Your task to perform on an android device: Clear all items from cart on ebay.com. Add "lenovo thinkpad" to the cart on ebay.com, then select checkout. Image 0: 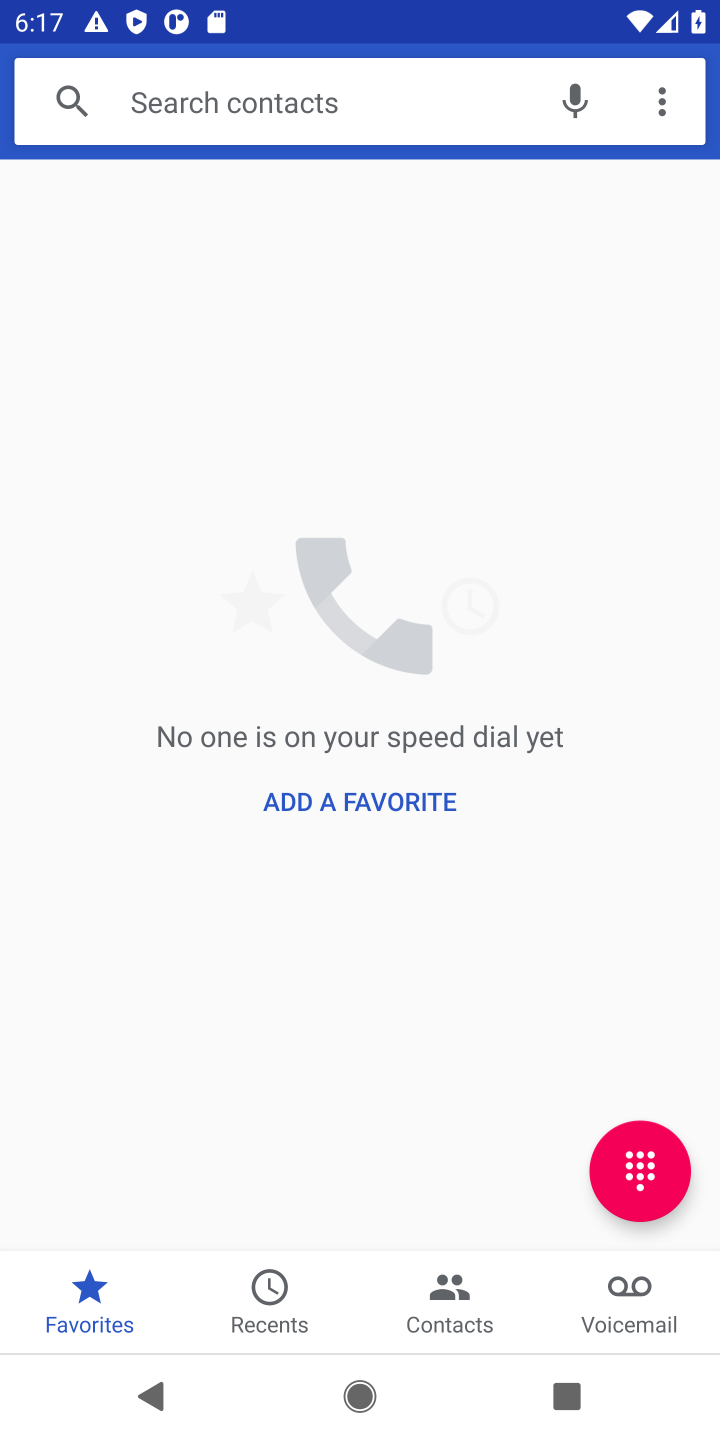
Step 0: press home button
Your task to perform on an android device: Clear all items from cart on ebay.com. Add "lenovo thinkpad" to the cart on ebay.com, then select checkout. Image 1: 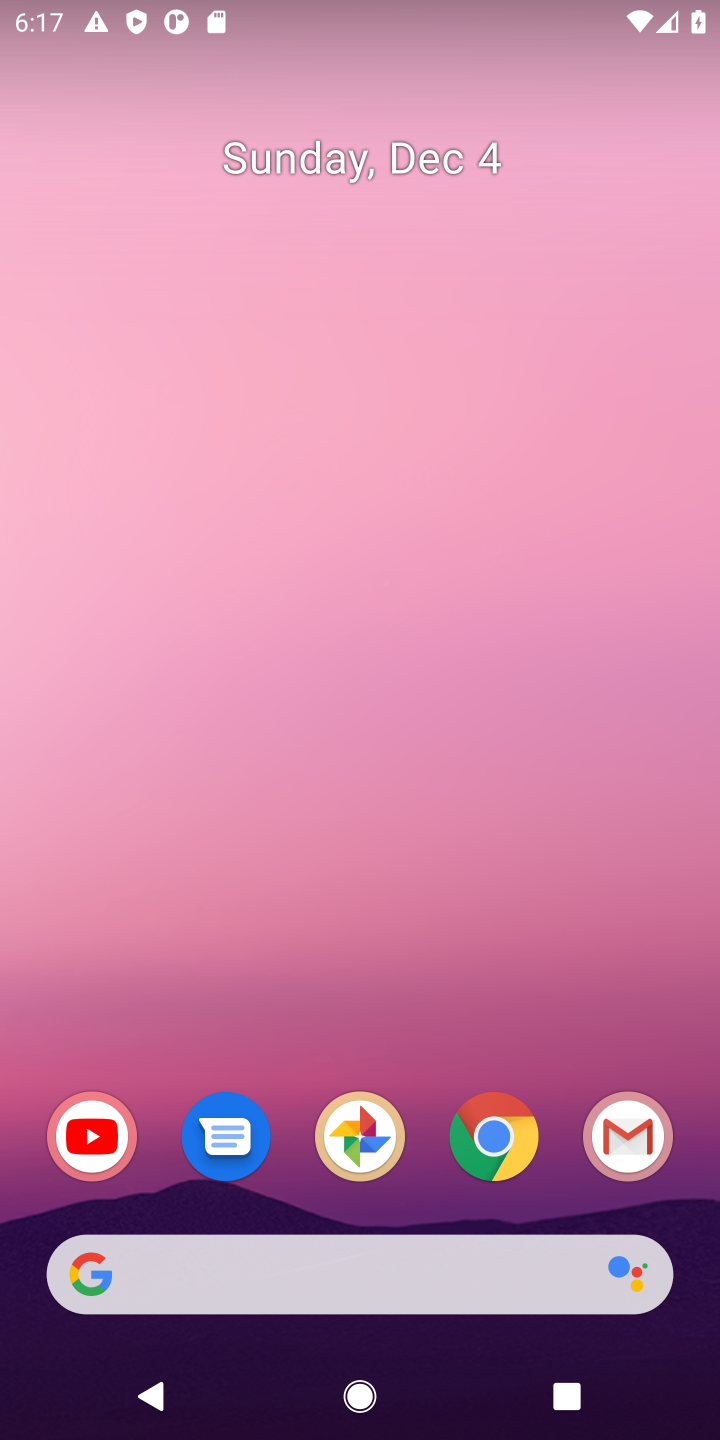
Step 1: click (515, 1139)
Your task to perform on an android device: Clear all items from cart on ebay.com. Add "lenovo thinkpad" to the cart on ebay.com, then select checkout. Image 2: 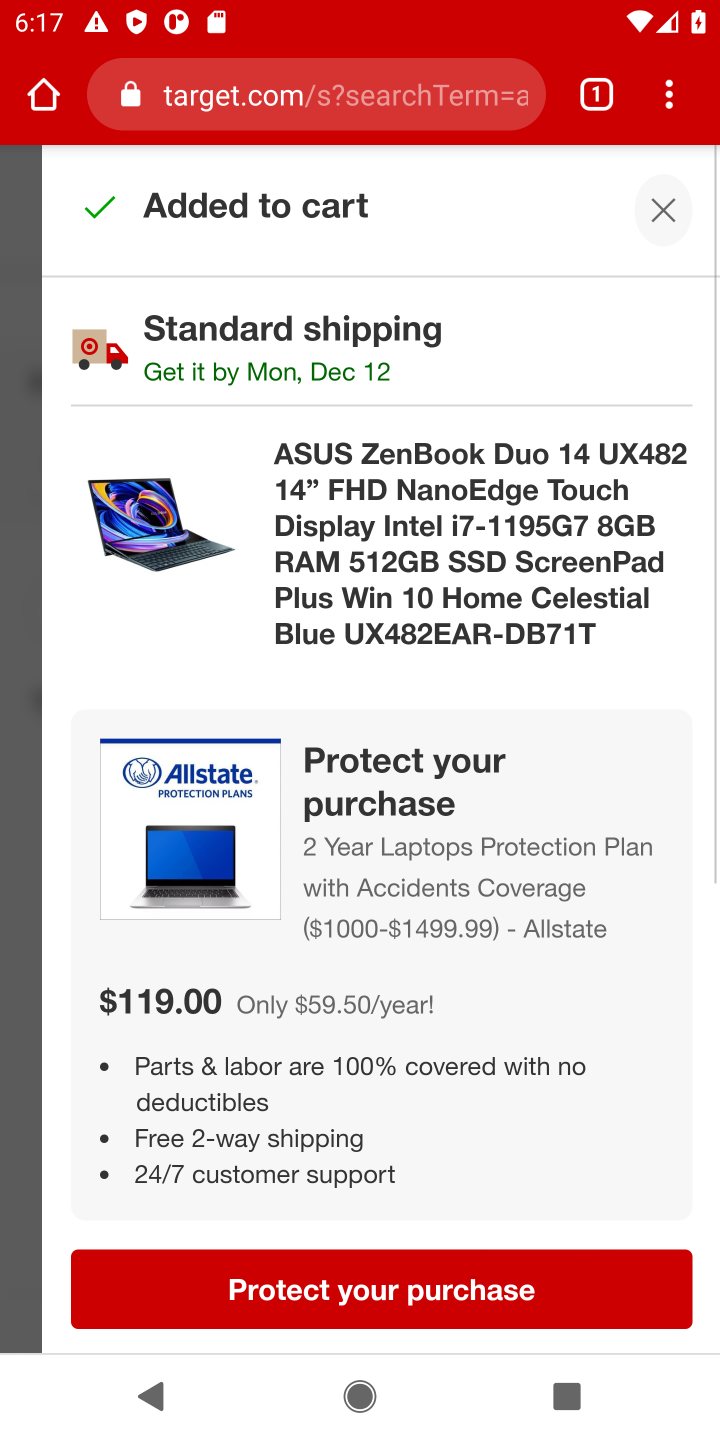
Step 2: click (319, 107)
Your task to perform on an android device: Clear all items from cart on ebay.com. Add "lenovo thinkpad" to the cart on ebay.com, then select checkout. Image 3: 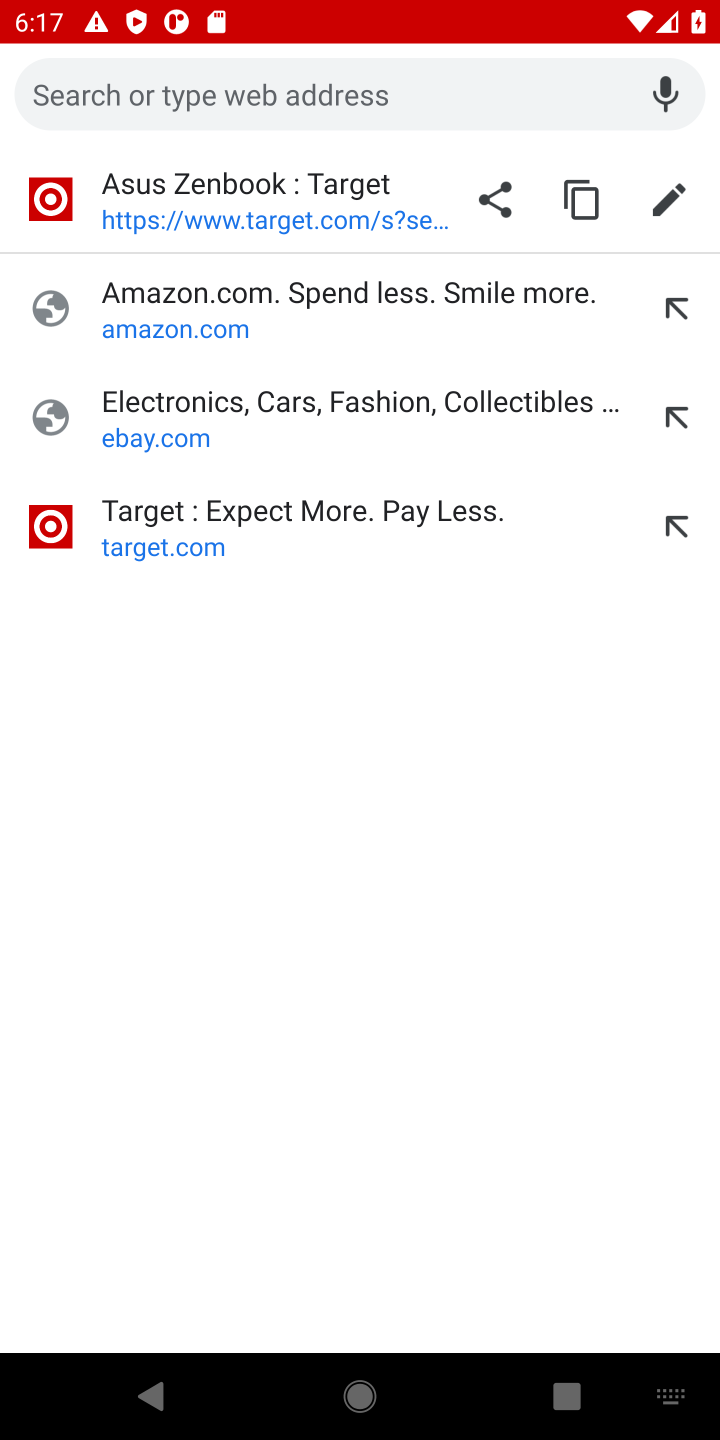
Step 3: click (151, 420)
Your task to perform on an android device: Clear all items from cart on ebay.com. Add "lenovo thinkpad" to the cart on ebay.com, then select checkout. Image 4: 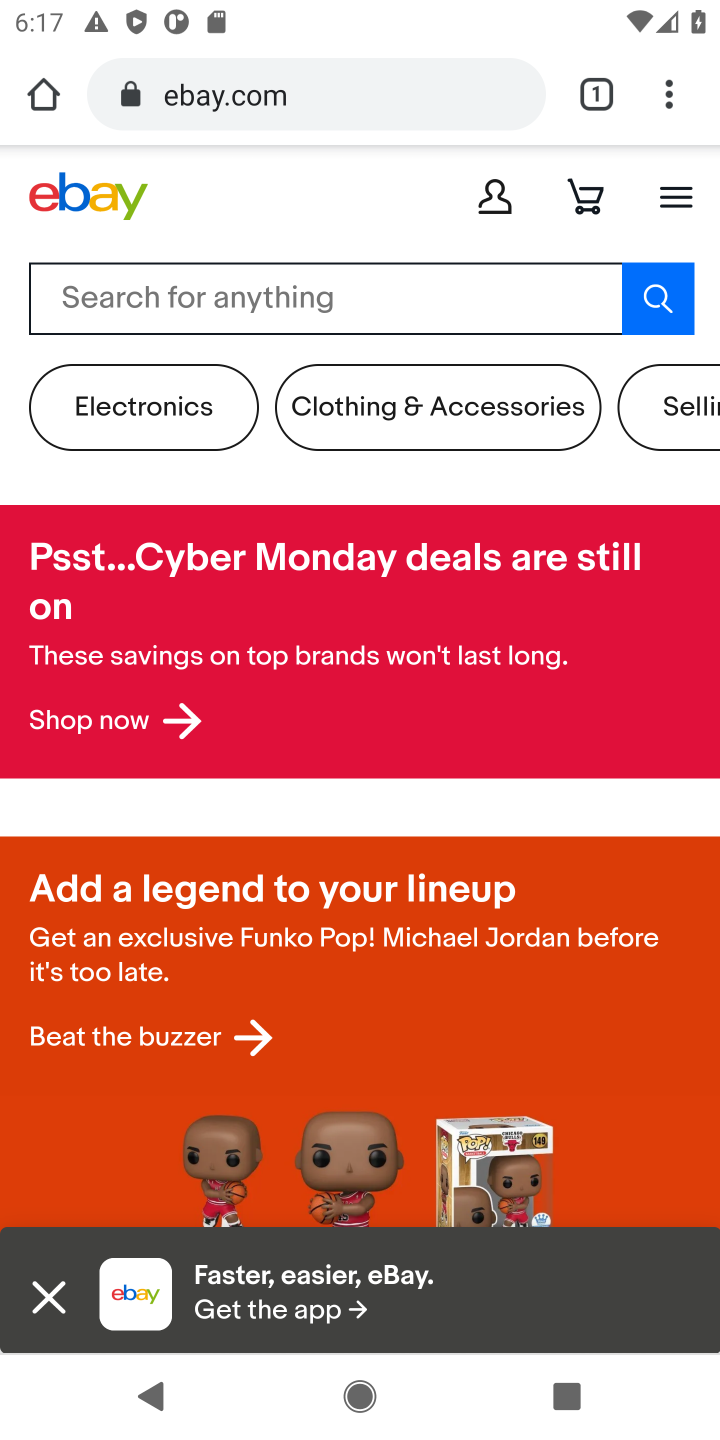
Step 4: click (584, 199)
Your task to perform on an android device: Clear all items from cart on ebay.com. Add "lenovo thinkpad" to the cart on ebay.com, then select checkout. Image 5: 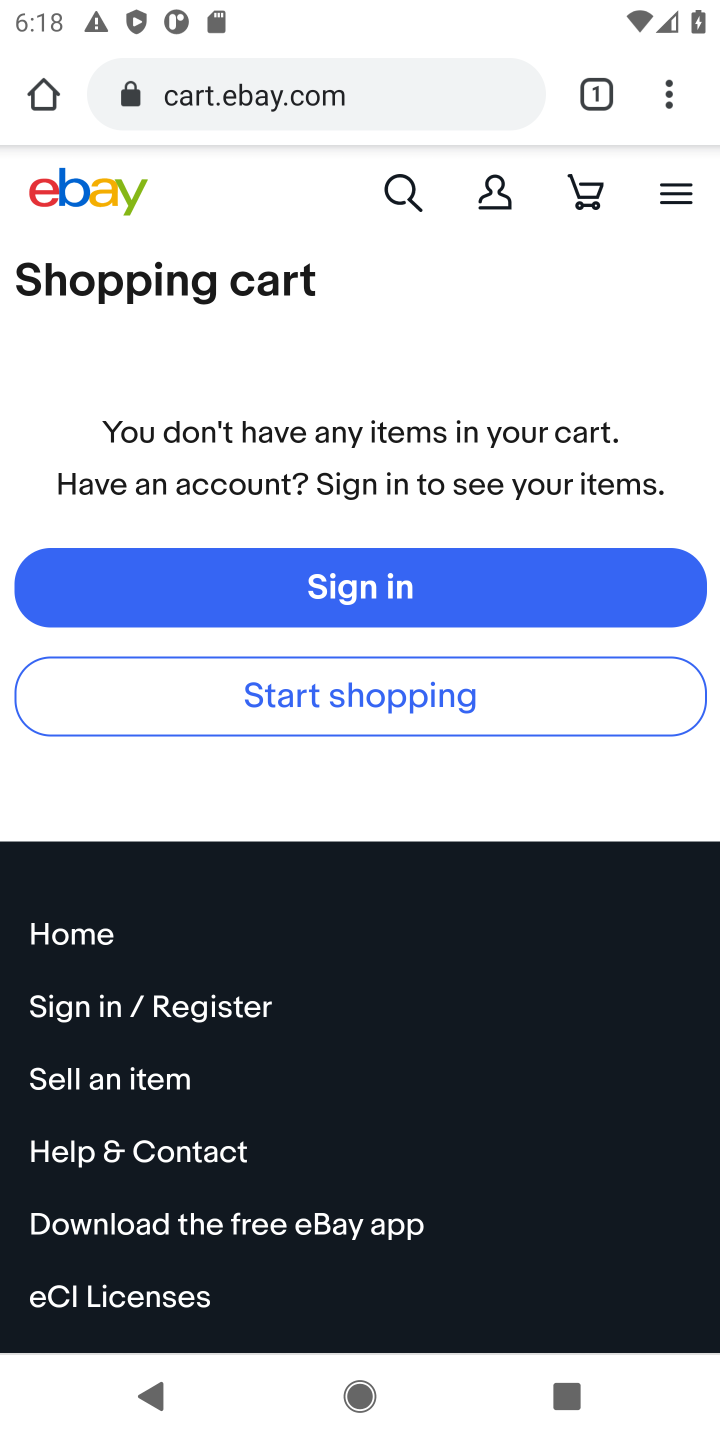
Step 5: click (392, 200)
Your task to perform on an android device: Clear all items from cart on ebay.com. Add "lenovo thinkpad" to the cart on ebay.com, then select checkout. Image 6: 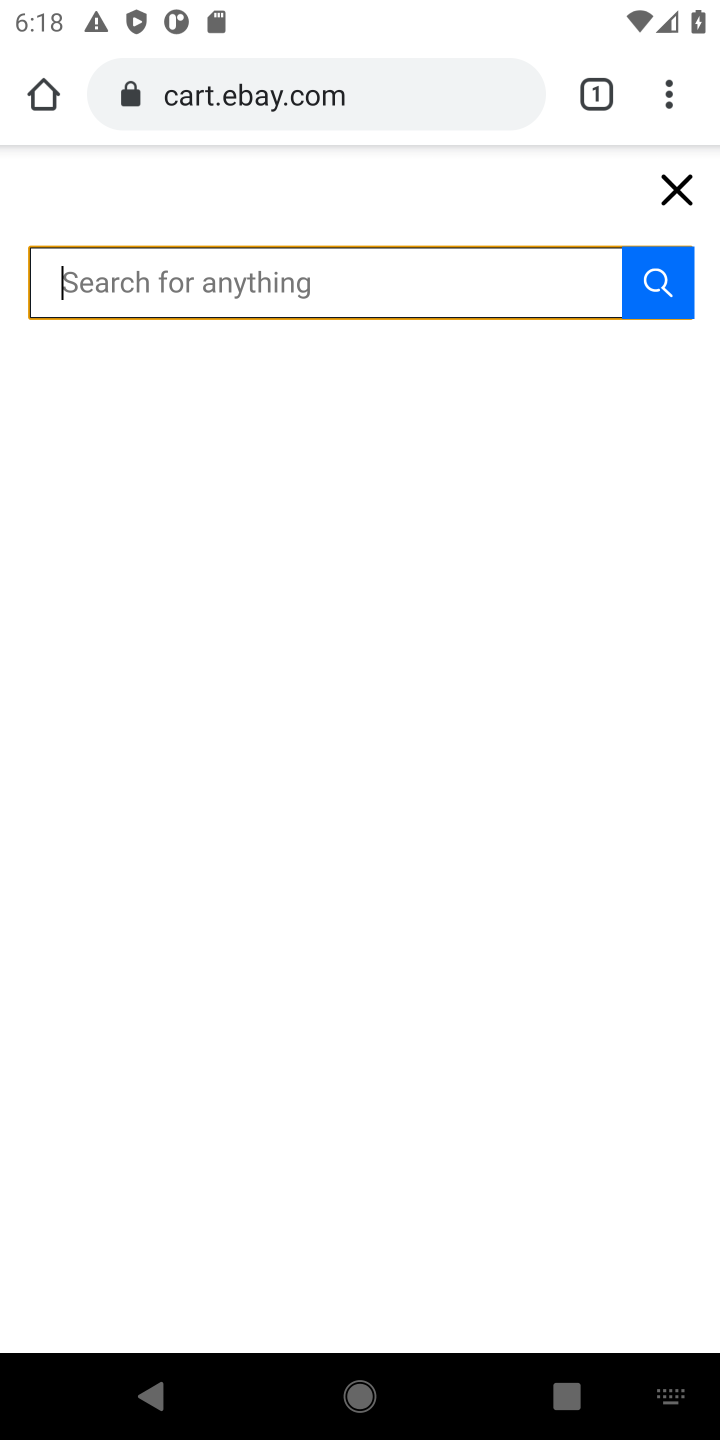
Step 6: type "lenovo thinkpad"
Your task to perform on an android device: Clear all items from cart on ebay.com. Add "lenovo thinkpad" to the cart on ebay.com, then select checkout. Image 7: 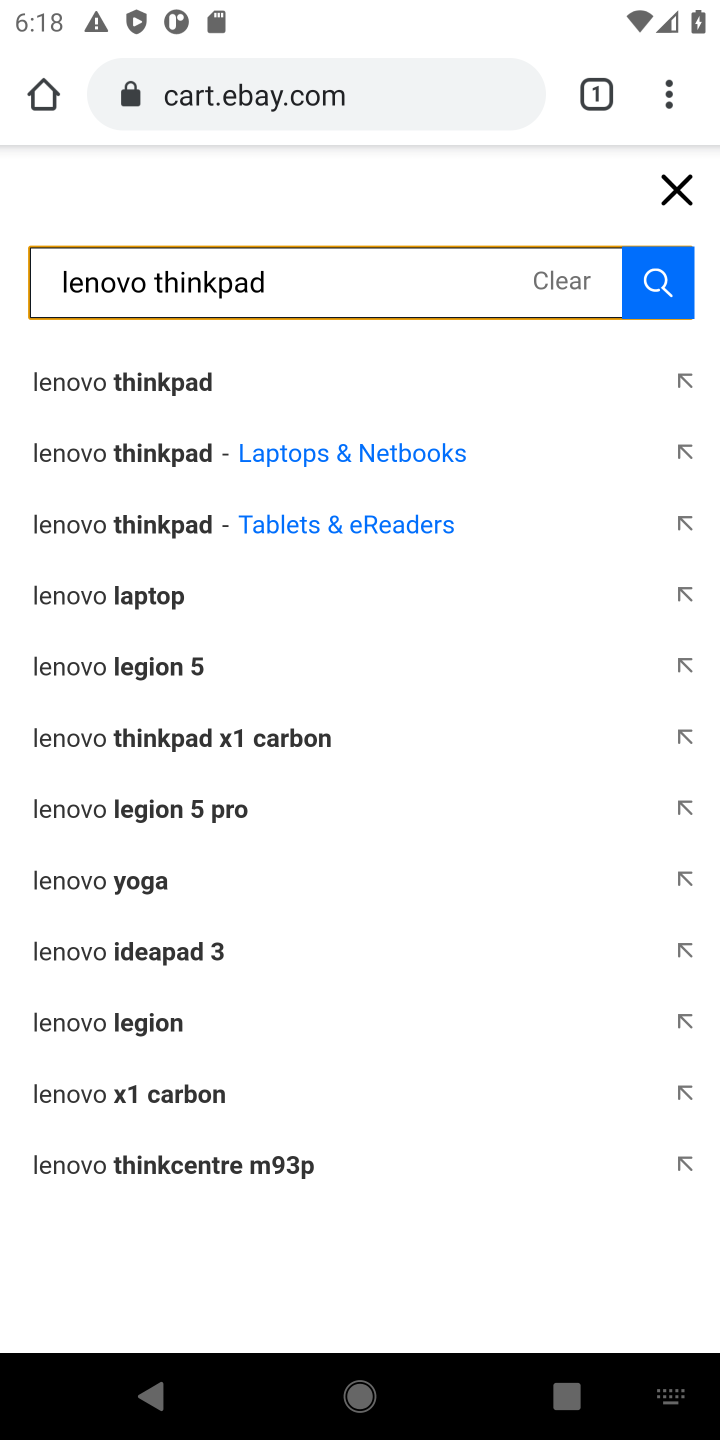
Step 7: click (140, 397)
Your task to perform on an android device: Clear all items from cart on ebay.com. Add "lenovo thinkpad" to the cart on ebay.com, then select checkout. Image 8: 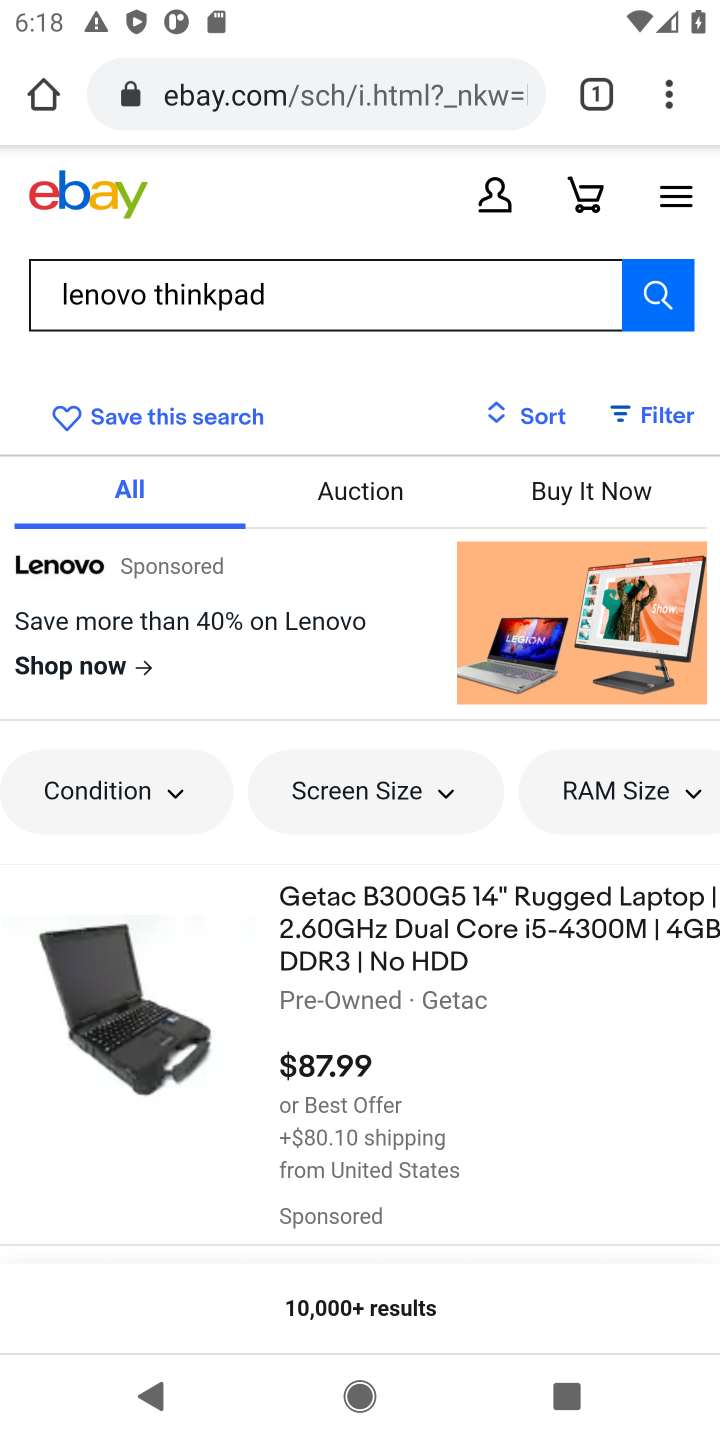
Step 8: drag from (436, 1075) to (355, 698)
Your task to perform on an android device: Clear all items from cart on ebay.com. Add "lenovo thinkpad" to the cart on ebay.com, then select checkout. Image 9: 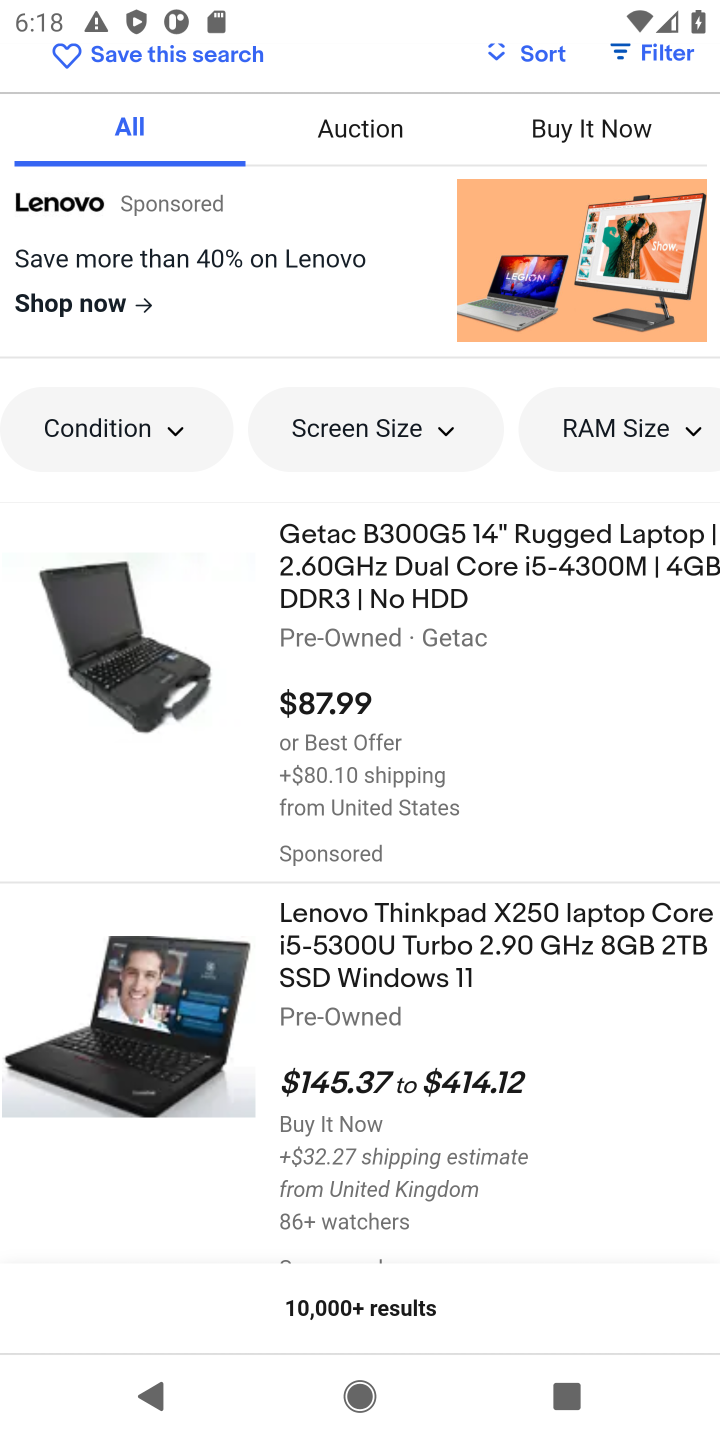
Step 9: drag from (347, 882) to (352, 583)
Your task to perform on an android device: Clear all items from cart on ebay.com. Add "lenovo thinkpad" to the cart on ebay.com, then select checkout. Image 10: 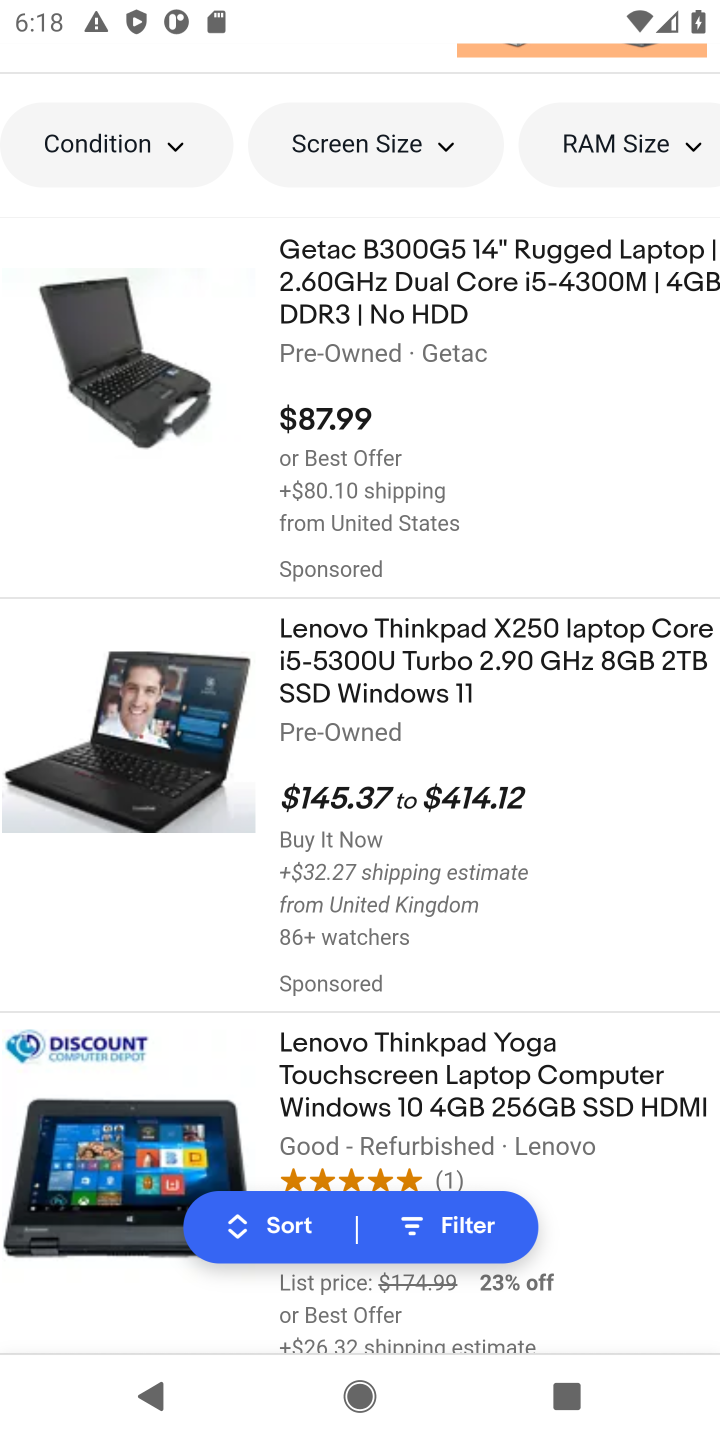
Step 10: click (316, 683)
Your task to perform on an android device: Clear all items from cart on ebay.com. Add "lenovo thinkpad" to the cart on ebay.com, then select checkout. Image 11: 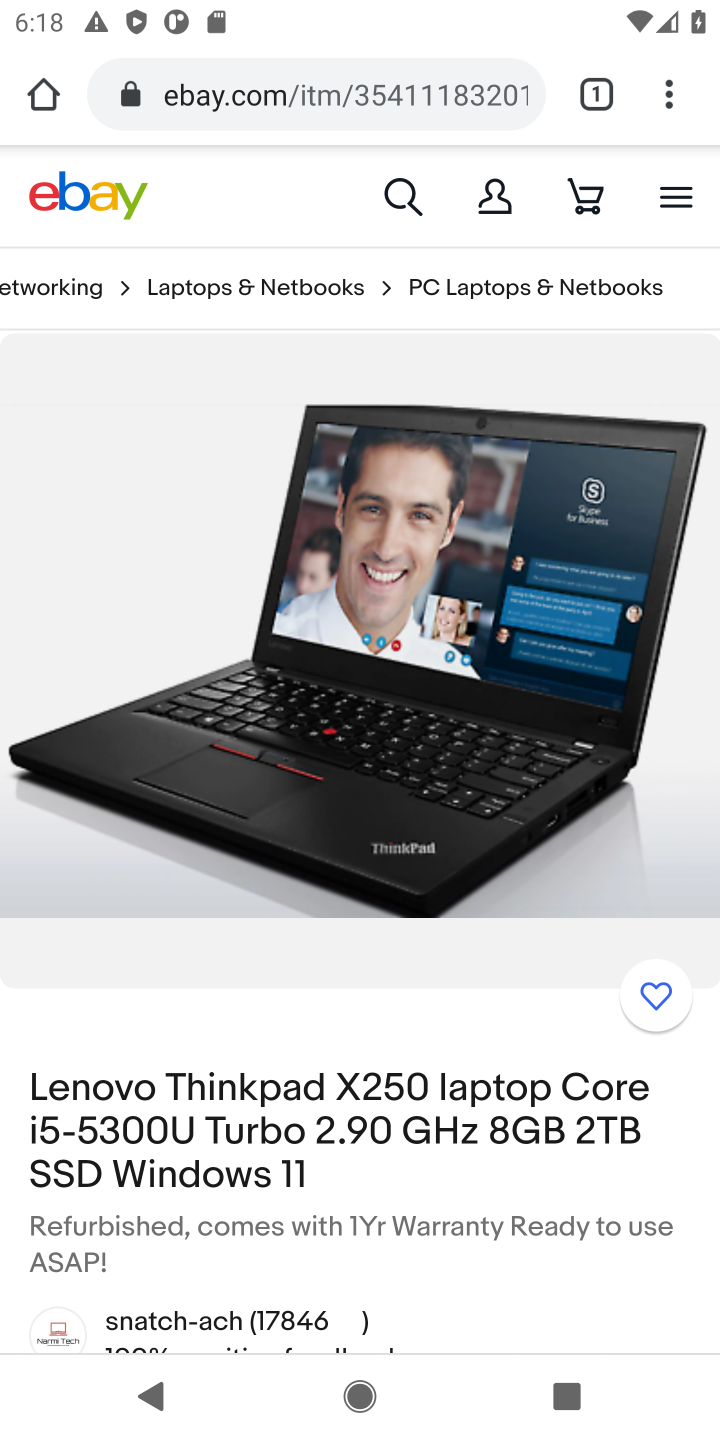
Step 11: drag from (364, 929) to (342, 483)
Your task to perform on an android device: Clear all items from cart on ebay.com. Add "lenovo thinkpad" to the cart on ebay.com, then select checkout. Image 12: 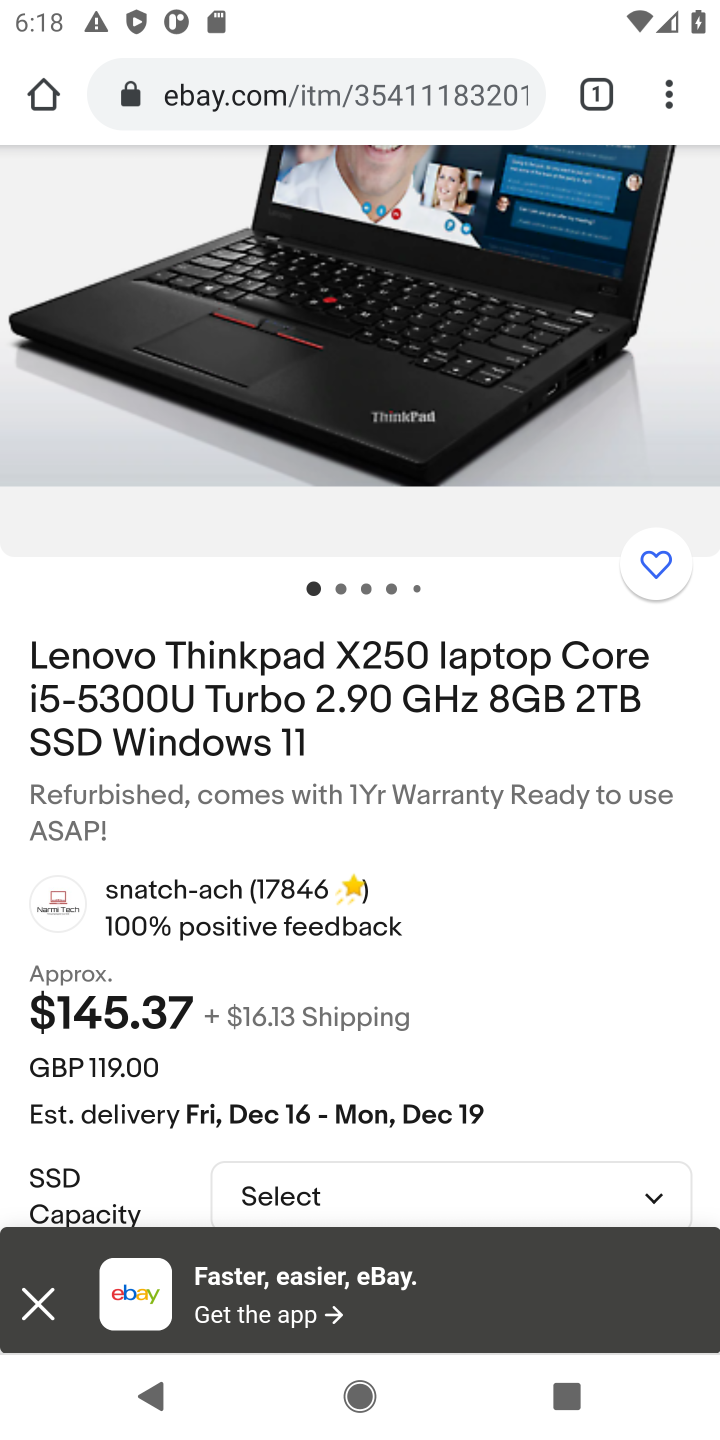
Step 12: drag from (353, 841) to (336, 490)
Your task to perform on an android device: Clear all items from cart on ebay.com. Add "lenovo thinkpad" to the cart on ebay.com, then select checkout. Image 13: 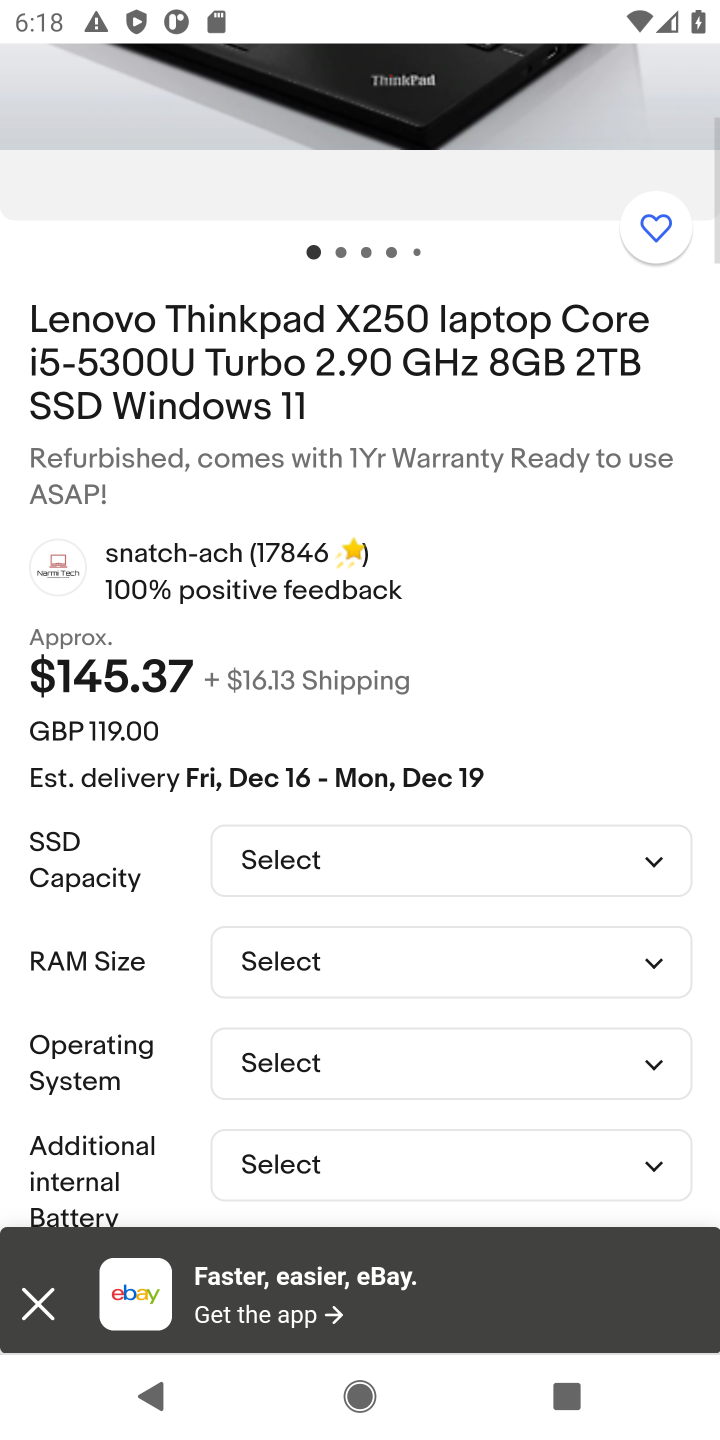
Step 13: drag from (285, 921) to (256, 426)
Your task to perform on an android device: Clear all items from cart on ebay.com. Add "lenovo thinkpad" to the cart on ebay.com, then select checkout. Image 14: 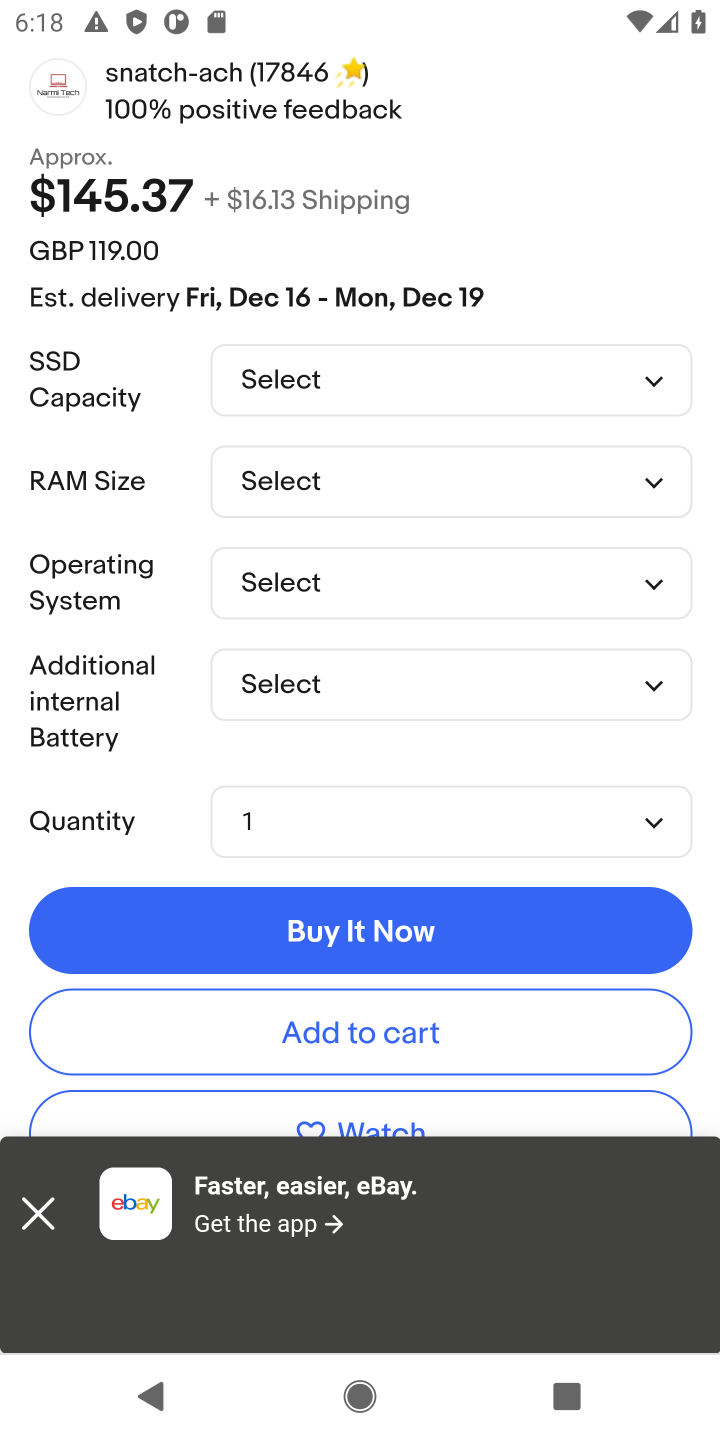
Step 14: click (342, 1044)
Your task to perform on an android device: Clear all items from cart on ebay.com. Add "lenovo thinkpad" to the cart on ebay.com, then select checkout. Image 15: 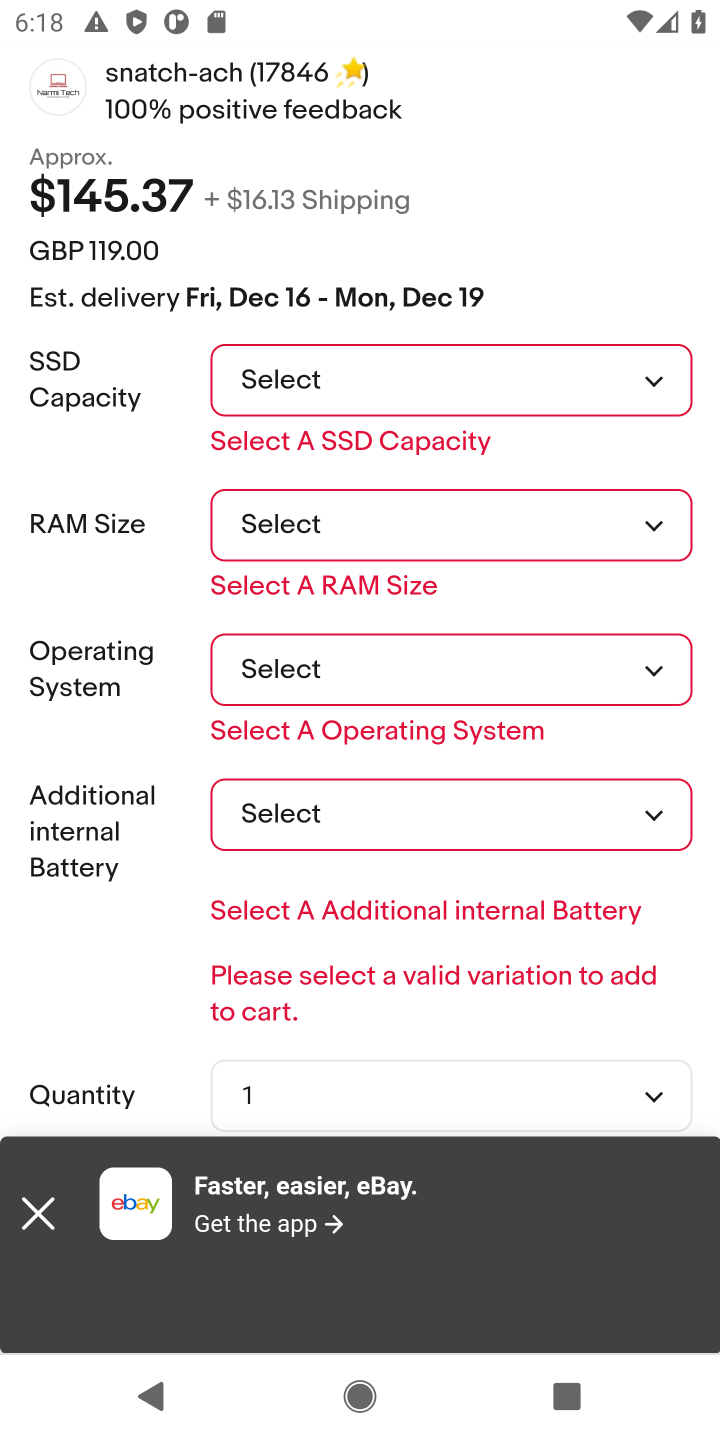
Step 15: click (648, 380)
Your task to perform on an android device: Clear all items from cart on ebay.com. Add "lenovo thinkpad" to the cart on ebay.com, then select checkout. Image 16: 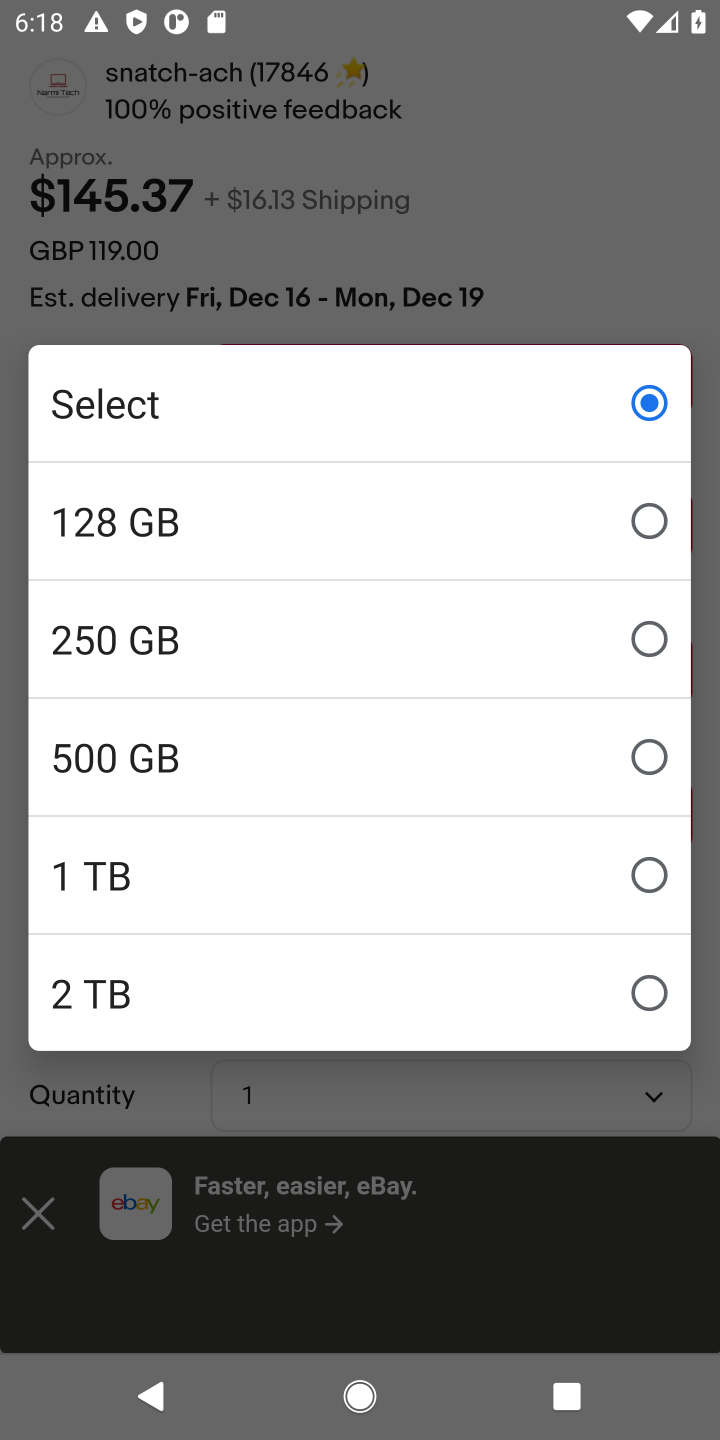
Step 16: click (137, 531)
Your task to perform on an android device: Clear all items from cart on ebay.com. Add "lenovo thinkpad" to the cart on ebay.com, then select checkout. Image 17: 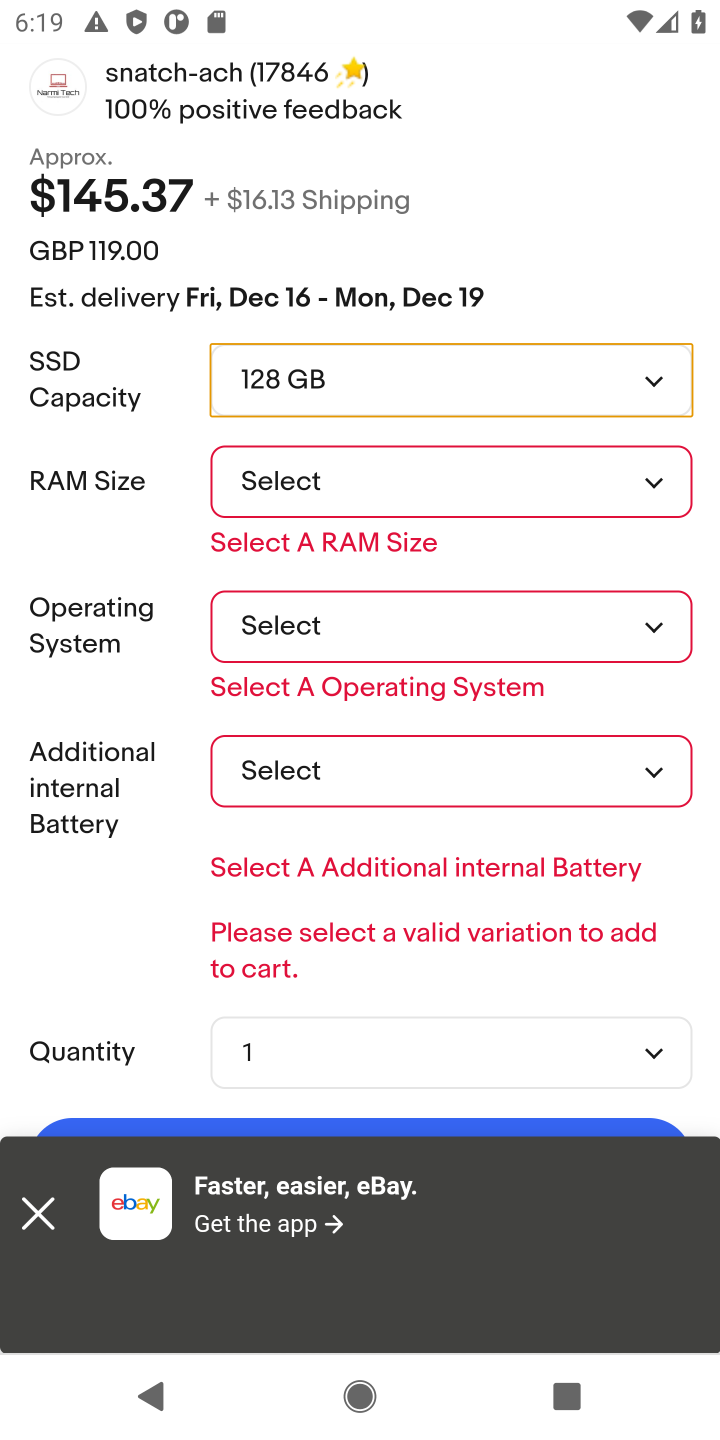
Step 17: click (661, 487)
Your task to perform on an android device: Clear all items from cart on ebay.com. Add "lenovo thinkpad" to the cart on ebay.com, then select checkout. Image 18: 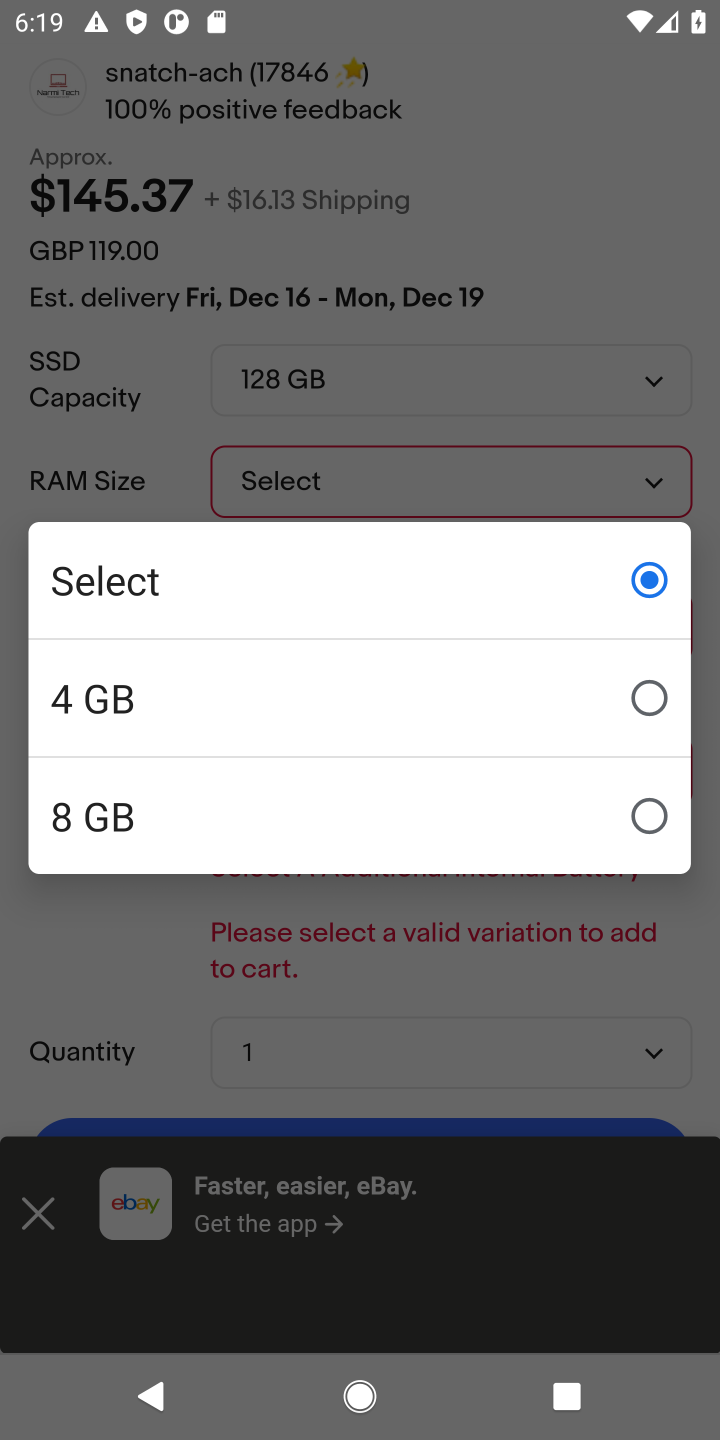
Step 18: click (118, 726)
Your task to perform on an android device: Clear all items from cart on ebay.com. Add "lenovo thinkpad" to the cart on ebay.com, then select checkout. Image 19: 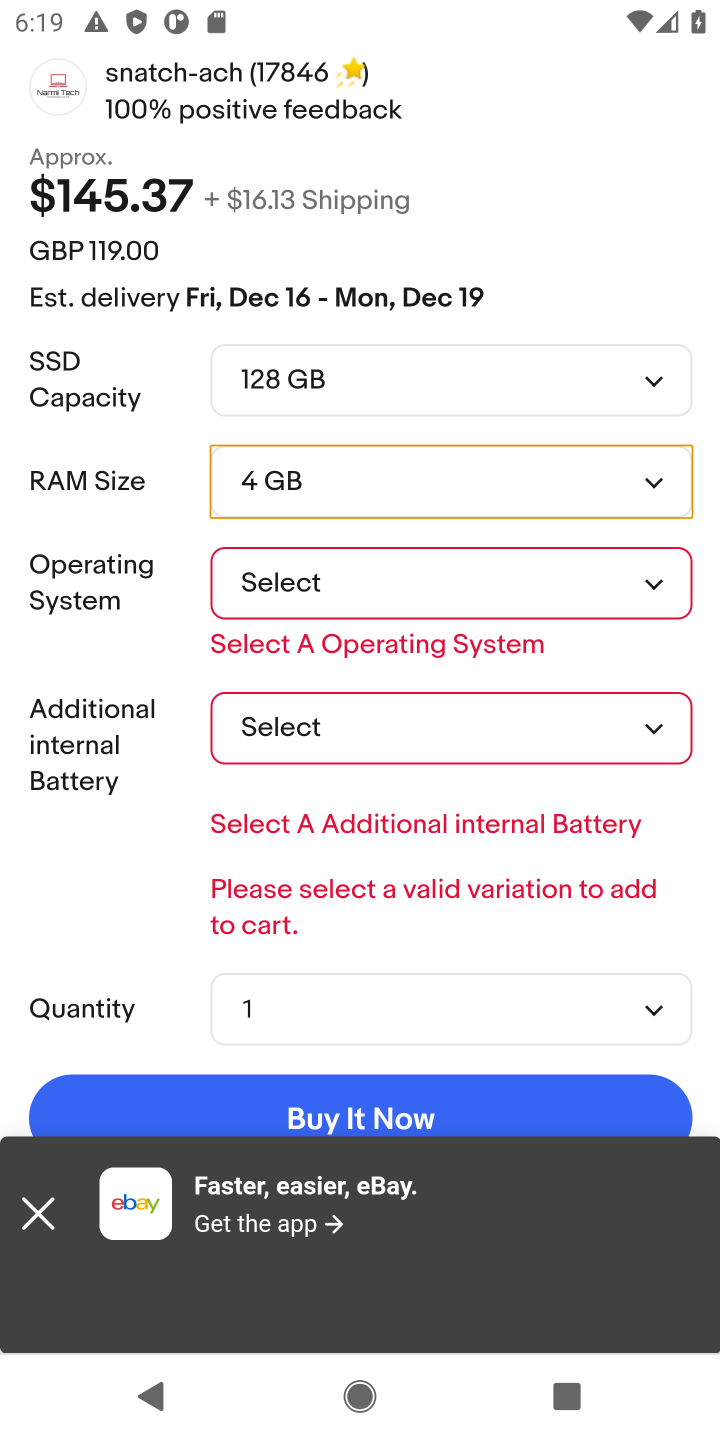
Step 19: click (661, 736)
Your task to perform on an android device: Clear all items from cart on ebay.com. Add "lenovo thinkpad" to the cart on ebay.com, then select checkout. Image 20: 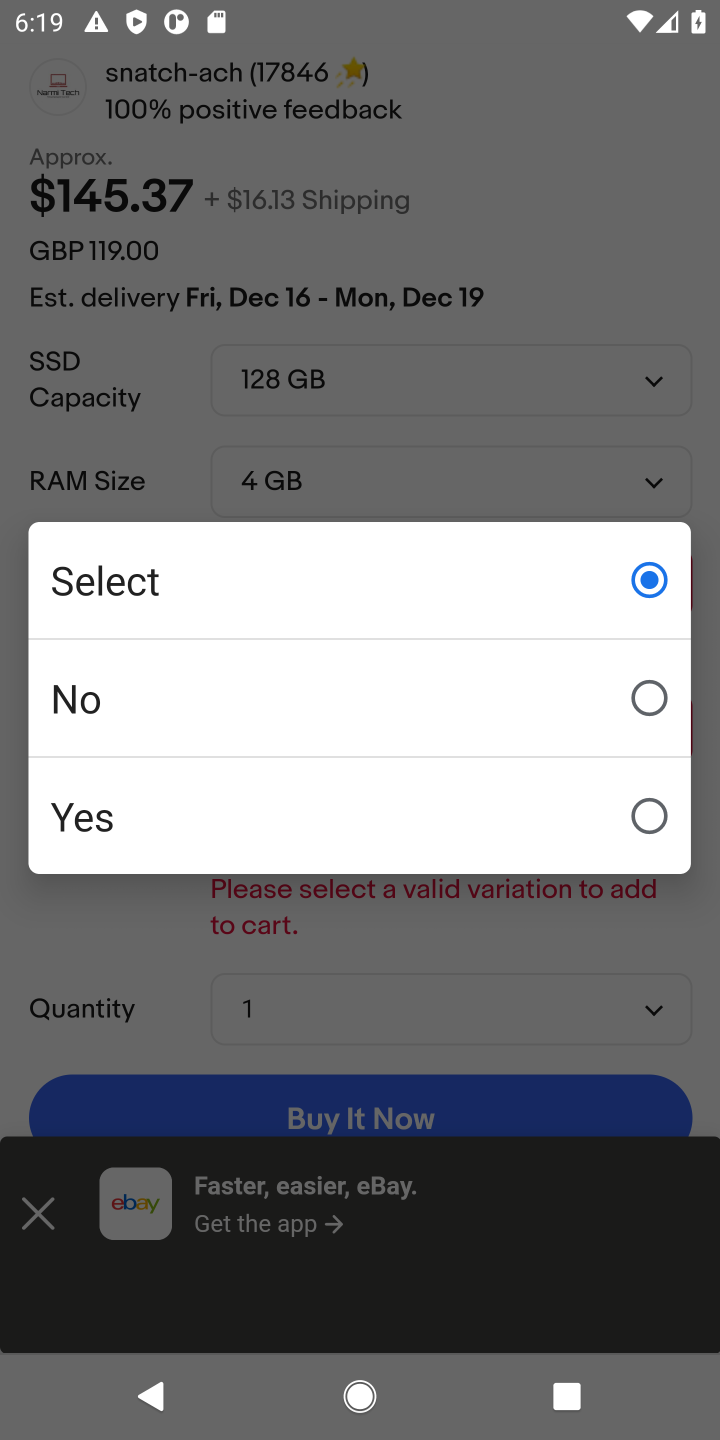
Step 20: click (96, 688)
Your task to perform on an android device: Clear all items from cart on ebay.com. Add "lenovo thinkpad" to the cart on ebay.com, then select checkout. Image 21: 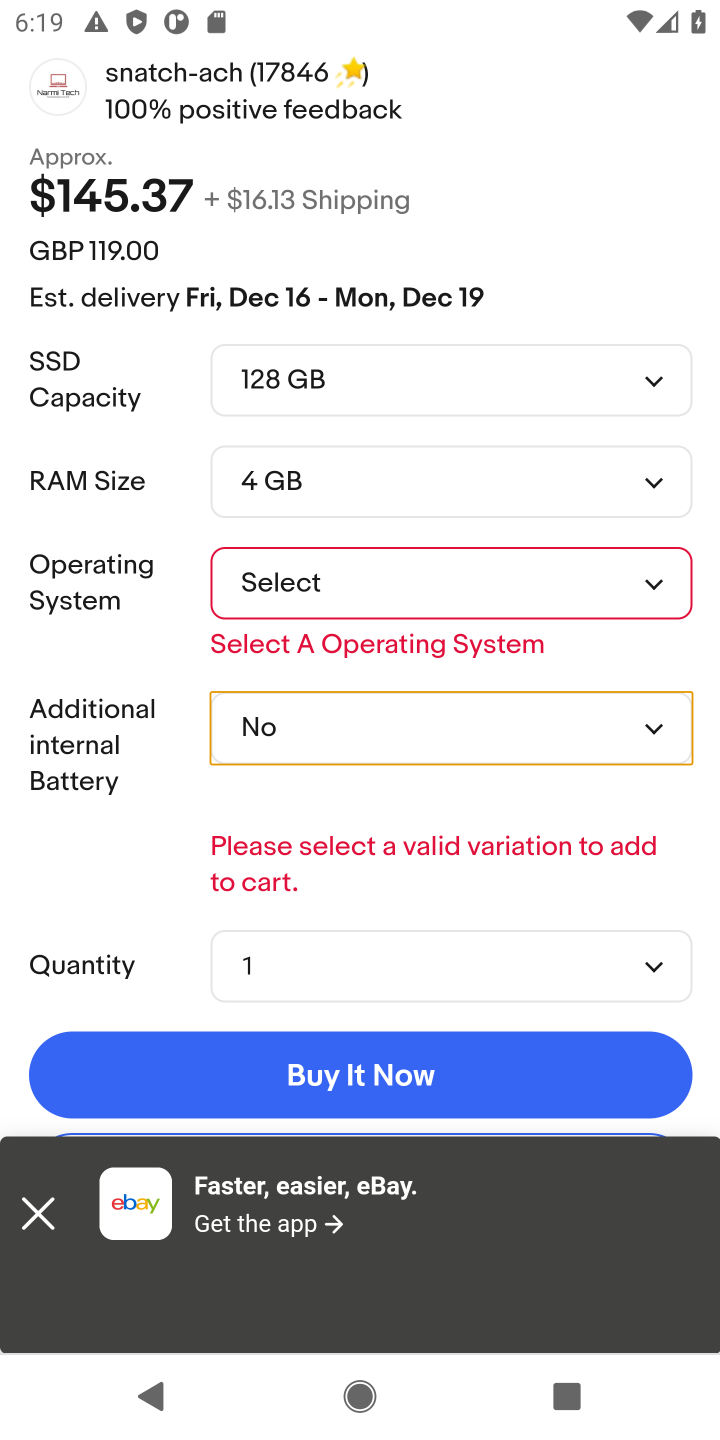
Step 21: click (656, 580)
Your task to perform on an android device: Clear all items from cart on ebay.com. Add "lenovo thinkpad" to the cart on ebay.com, then select checkout. Image 22: 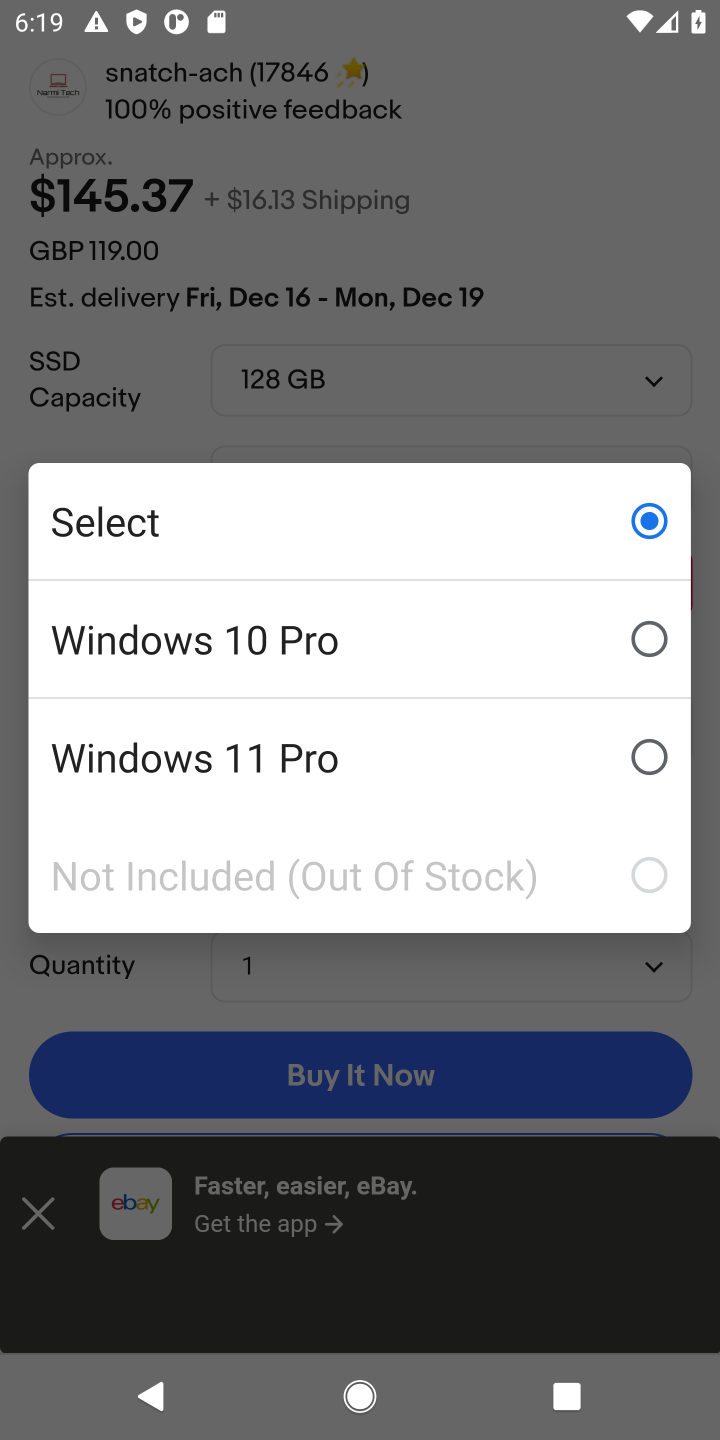
Step 22: click (147, 630)
Your task to perform on an android device: Clear all items from cart on ebay.com. Add "lenovo thinkpad" to the cart on ebay.com, then select checkout. Image 23: 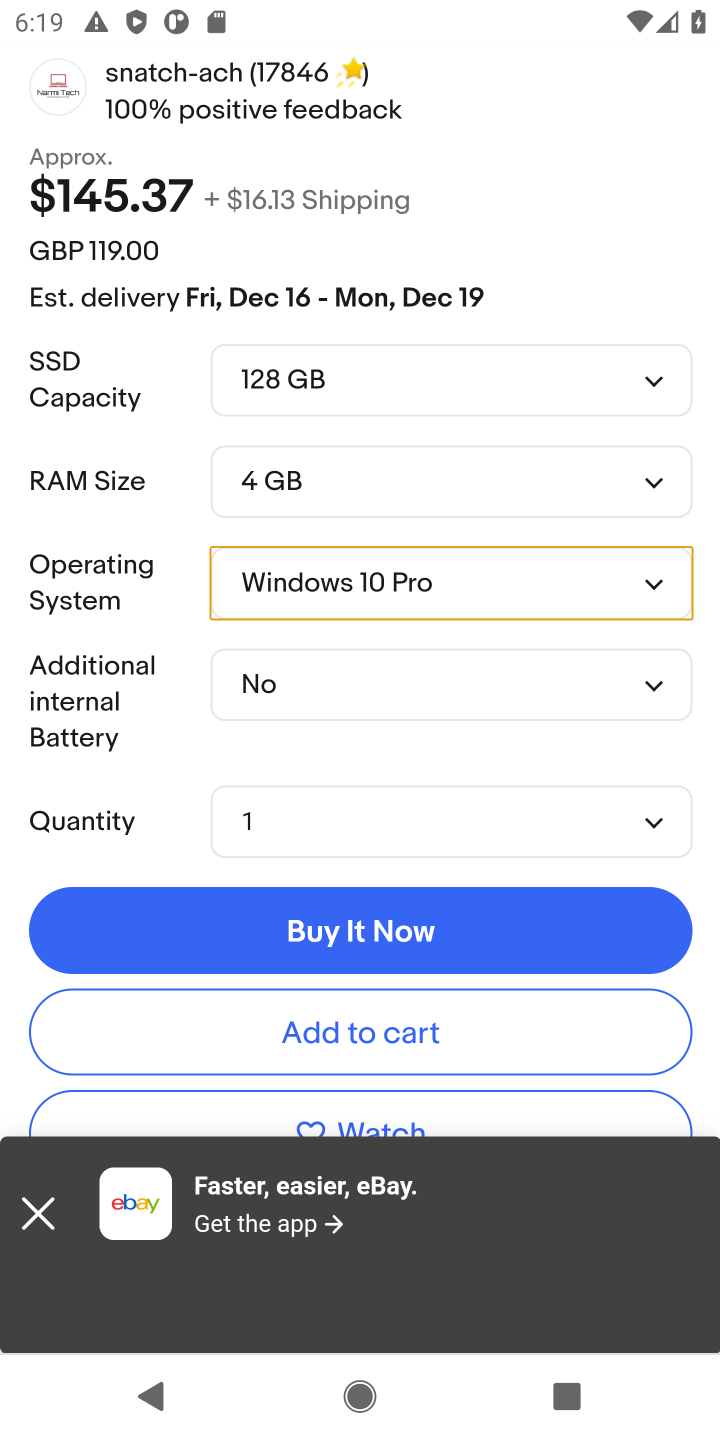
Step 23: click (299, 1043)
Your task to perform on an android device: Clear all items from cart on ebay.com. Add "lenovo thinkpad" to the cart on ebay.com, then select checkout. Image 24: 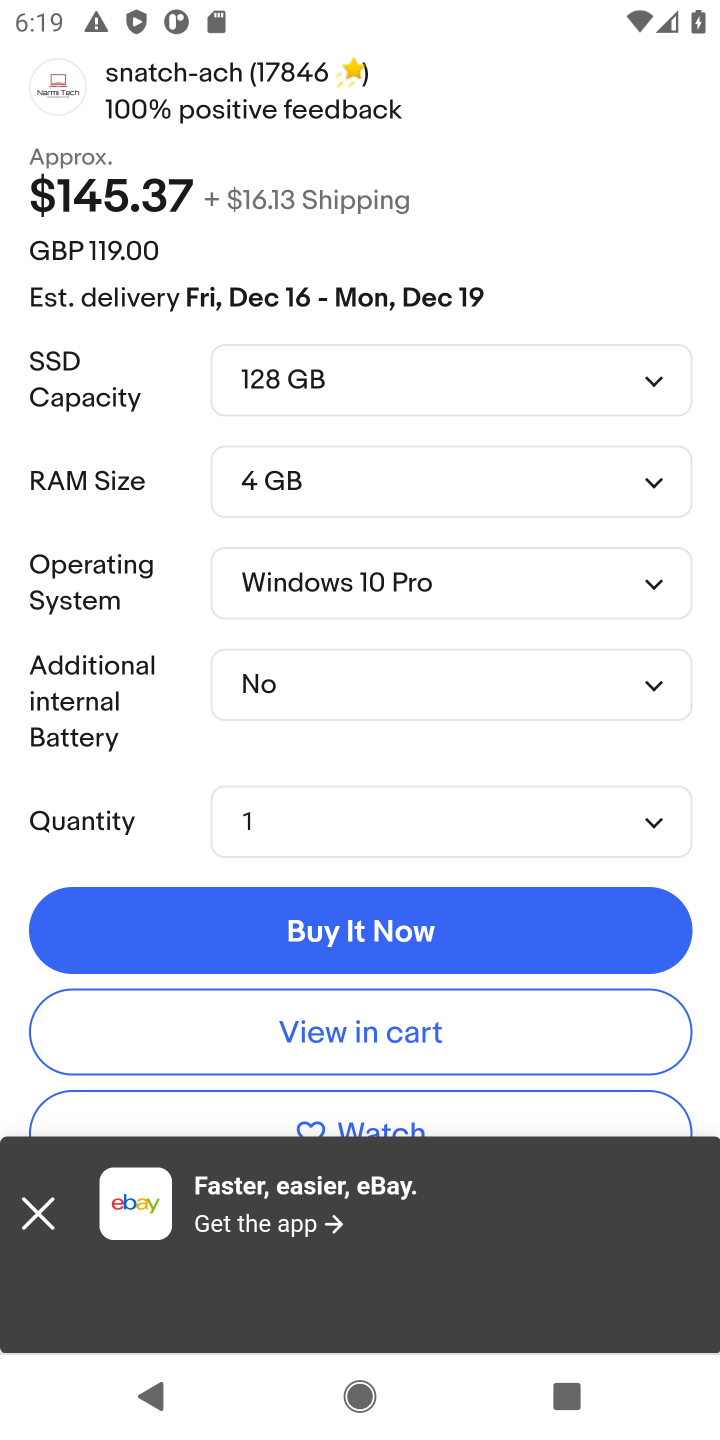
Step 24: click (317, 1024)
Your task to perform on an android device: Clear all items from cart on ebay.com. Add "lenovo thinkpad" to the cart on ebay.com, then select checkout. Image 25: 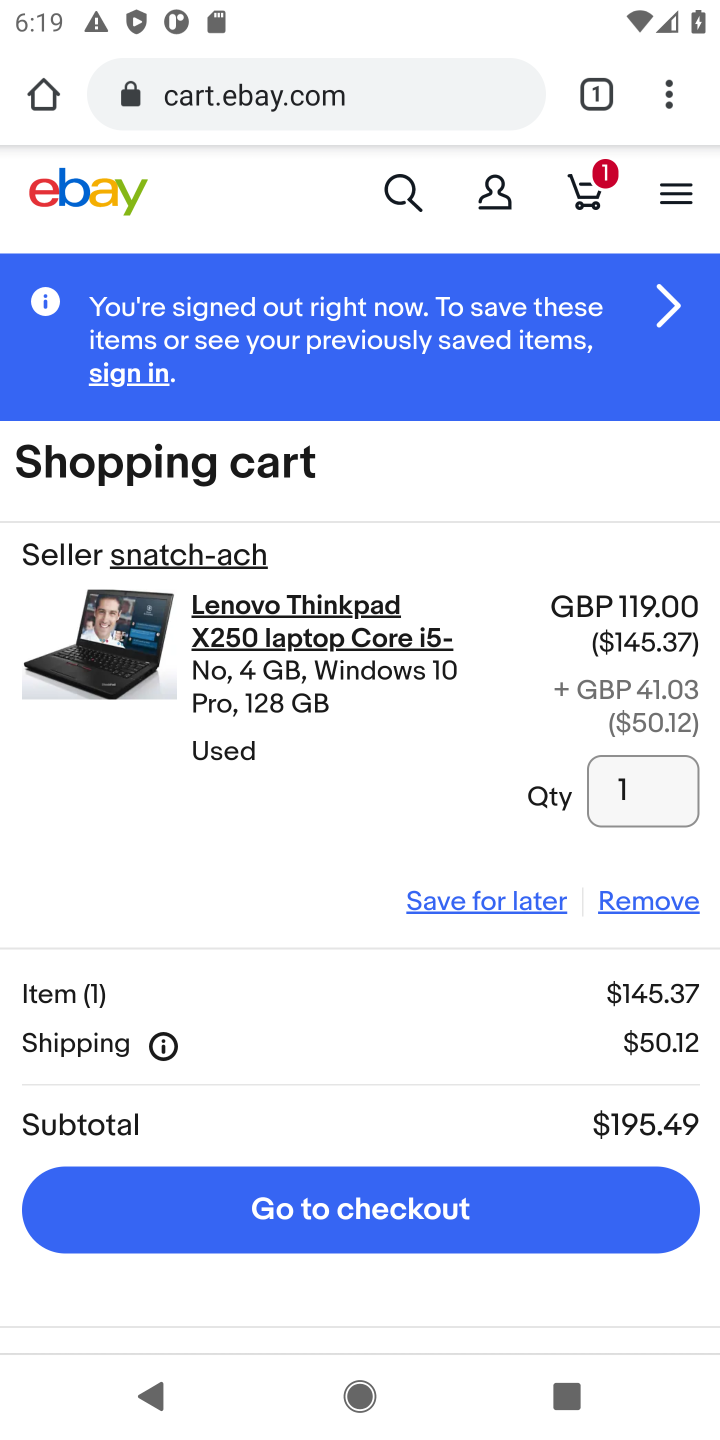
Step 25: click (332, 1216)
Your task to perform on an android device: Clear all items from cart on ebay.com. Add "lenovo thinkpad" to the cart on ebay.com, then select checkout. Image 26: 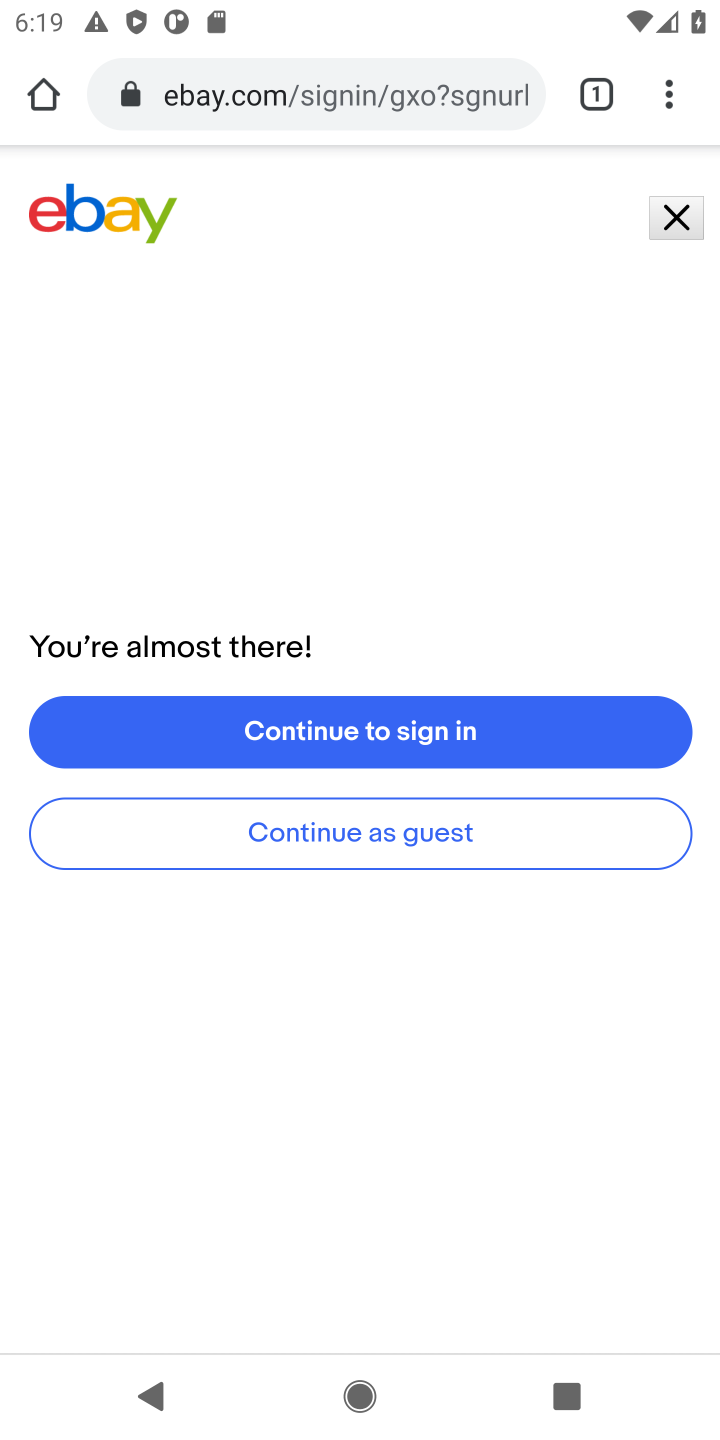
Step 26: task complete